Your task to perform on an android device: Open calendar and show me the fourth week of next month Image 0: 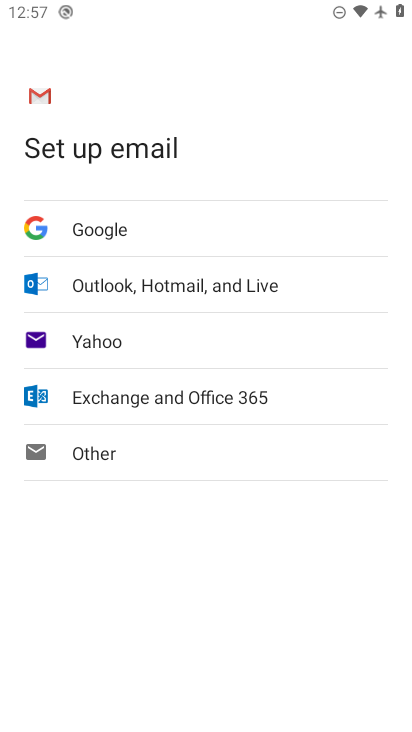
Step 0: press home button
Your task to perform on an android device: Open calendar and show me the fourth week of next month Image 1: 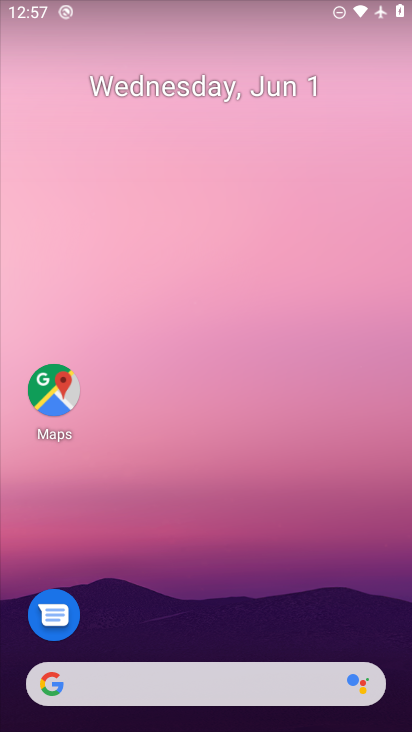
Step 1: drag from (281, 568) to (191, 45)
Your task to perform on an android device: Open calendar and show me the fourth week of next month Image 2: 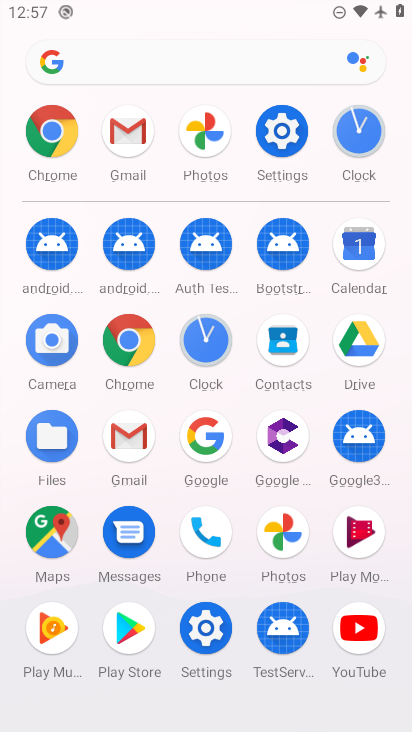
Step 2: click (365, 248)
Your task to perform on an android device: Open calendar and show me the fourth week of next month Image 3: 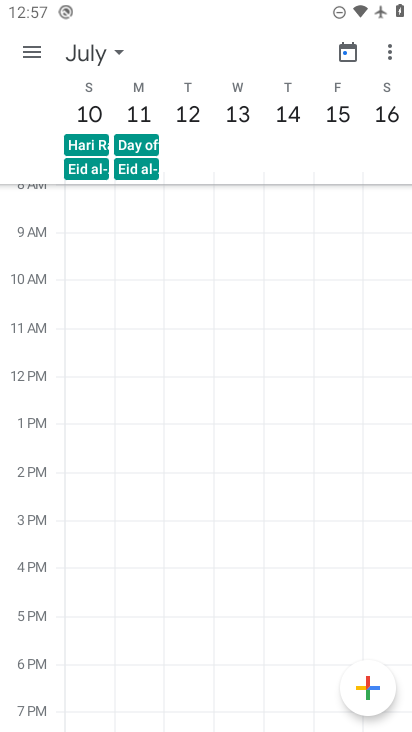
Step 3: click (121, 58)
Your task to perform on an android device: Open calendar and show me the fourth week of next month Image 4: 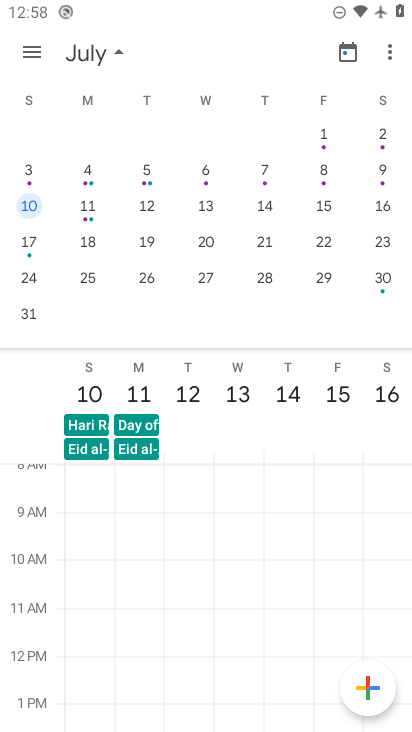
Step 4: click (387, 246)
Your task to perform on an android device: Open calendar and show me the fourth week of next month Image 5: 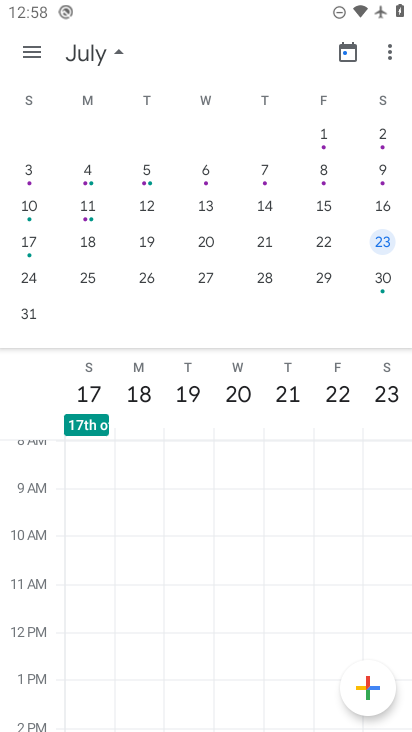
Step 5: click (33, 55)
Your task to perform on an android device: Open calendar and show me the fourth week of next month Image 6: 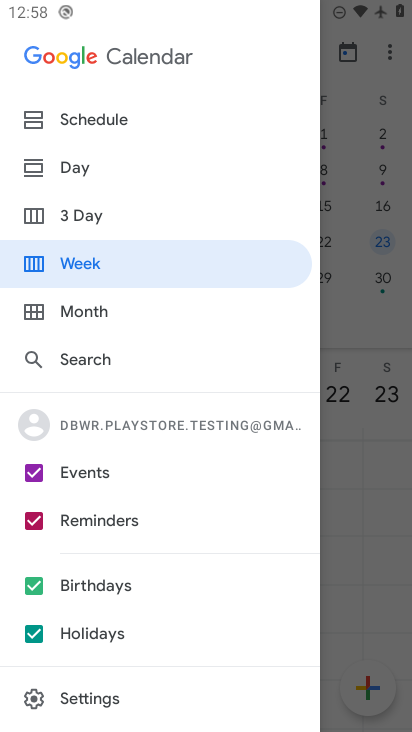
Step 6: click (143, 258)
Your task to perform on an android device: Open calendar and show me the fourth week of next month Image 7: 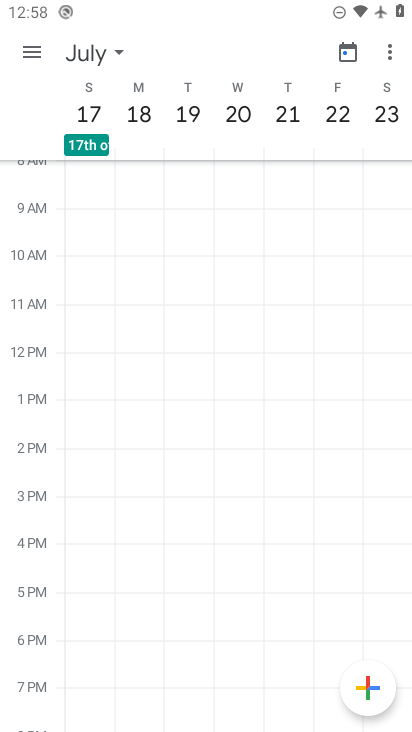
Step 7: task complete